Your task to perform on an android device: manage bookmarks in the chrome app Image 0: 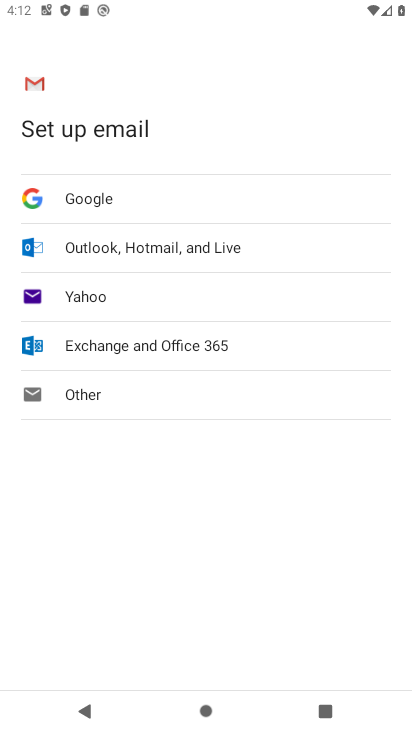
Step 0: press home button
Your task to perform on an android device: manage bookmarks in the chrome app Image 1: 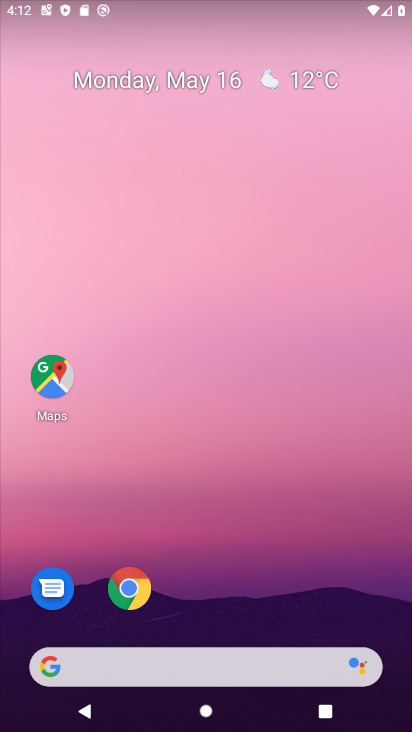
Step 1: click (140, 584)
Your task to perform on an android device: manage bookmarks in the chrome app Image 2: 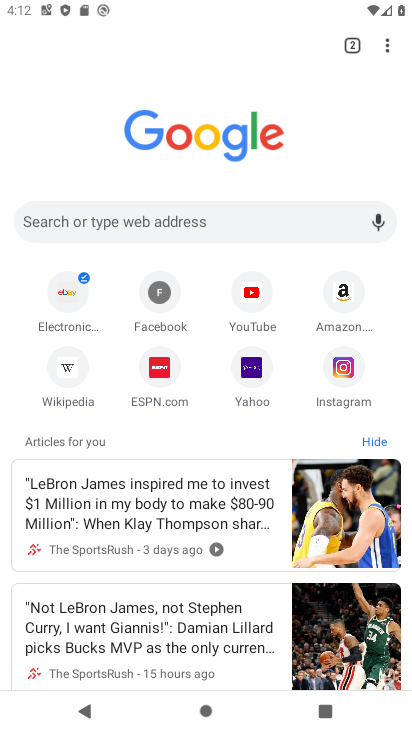
Step 2: click (389, 45)
Your task to perform on an android device: manage bookmarks in the chrome app Image 3: 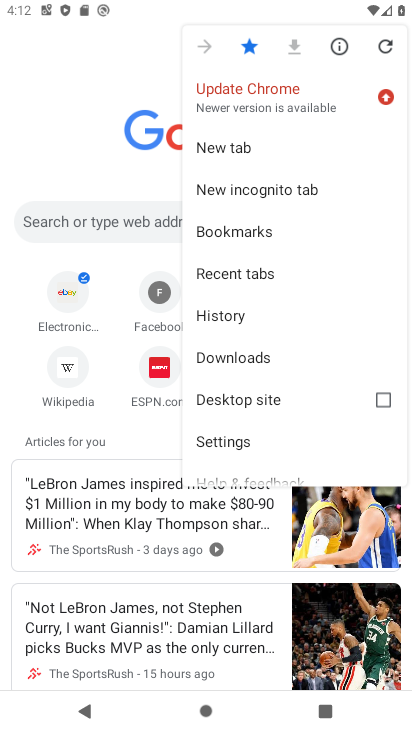
Step 3: click (251, 233)
Your task to perform on an android device: manage bookmarks in the chrome app Image 4: 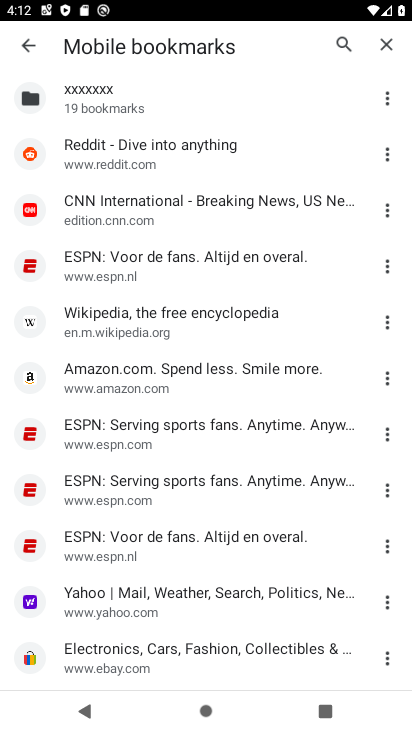
Step 4: click (387, 100)
Your task to perform on an android device: manage bookmarks in the chrome app Image 5: 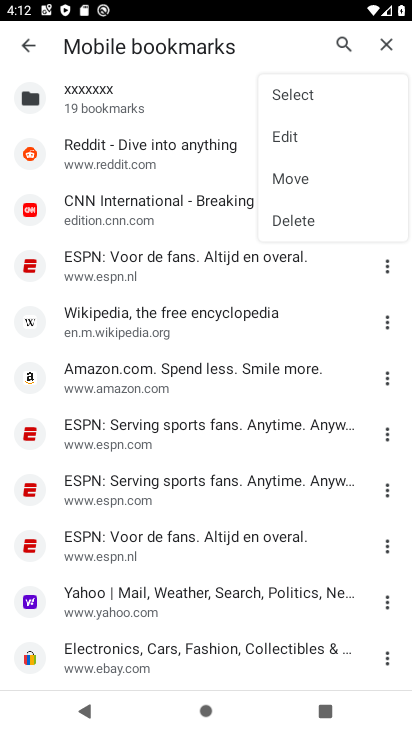
Step 5: click (301, 216)
Your task to perform on an android device: manage bookmarks in the chrome app Image 6: 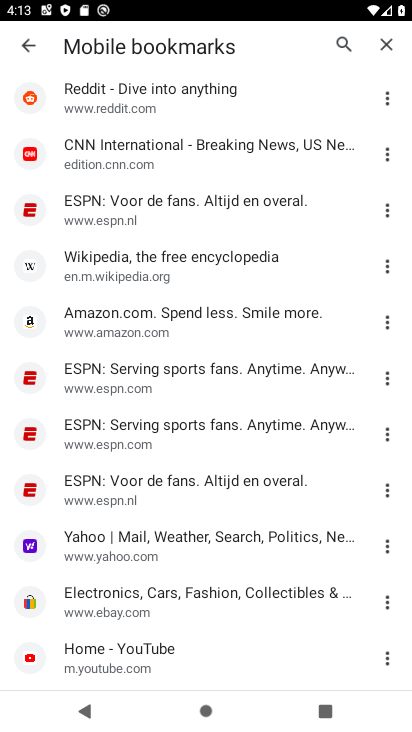
Step 6: click (382, 378)
Your task to perform on an android device: manage bookmarks in the chrome app Image 7: 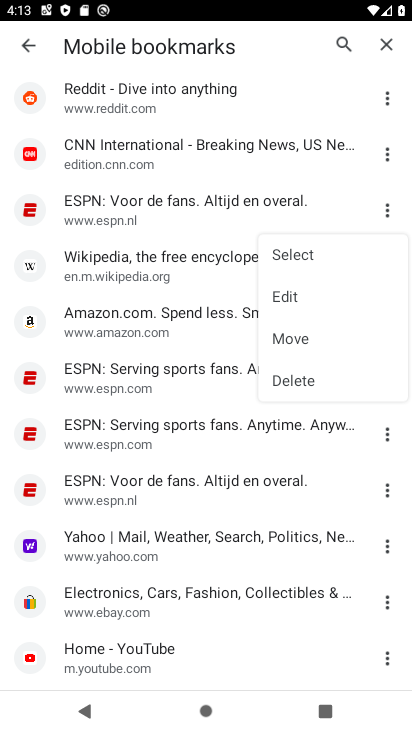
Step 7: click (285, 380)
Your task to perform on an android device: manage bookmarks in the chrome app Image 8: 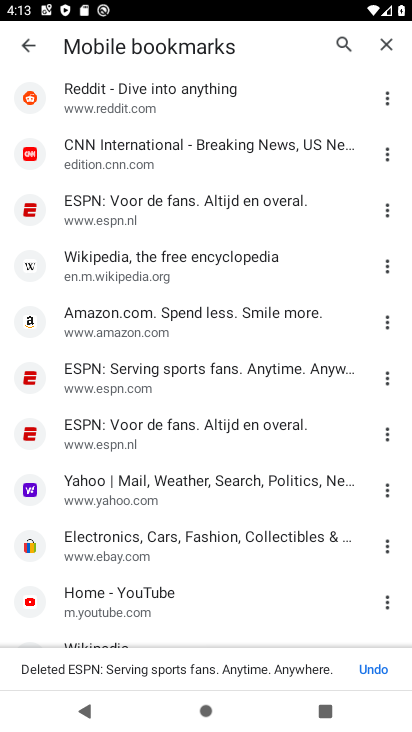
Step 8: task complete